Your task to perform on an android device: What's the weather going to be this weekend? Image 0: 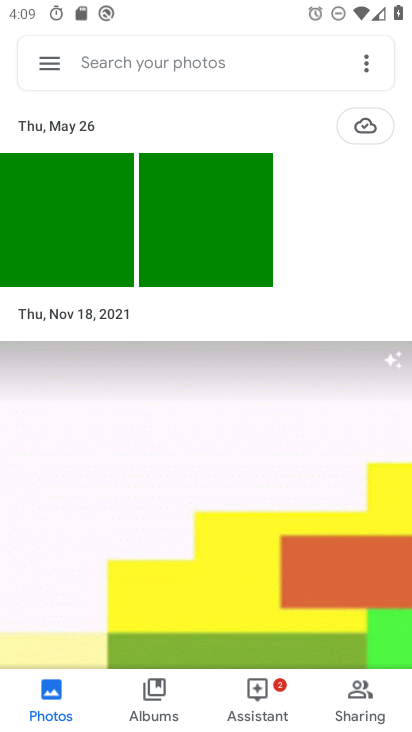
Step 0: press home button
Your task to perform on an android device: What's the weather going to be this weekend? Image 1: 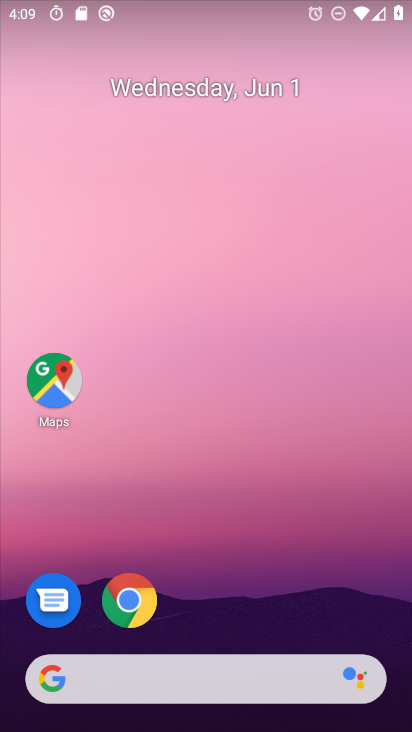
Step 1: click (215, 672)
Your task to perform on an android device: What's the weather going to be this weekend? Image 2: 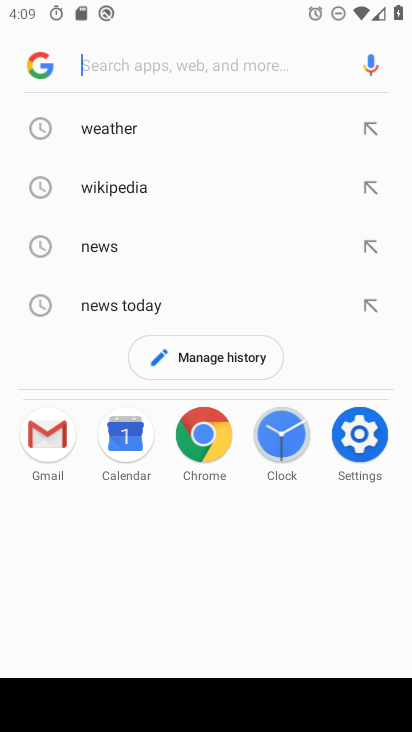
Step 2: click (108, 133)
Your task to perform on an android device: What's the weather going to be this weekend? Image 3: 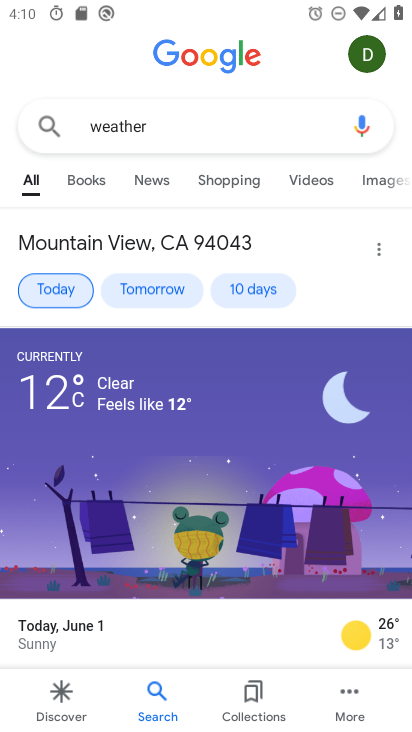
Step 3: click (240, 296)
Your task to perform on an android device: What's the weather going to be this weekend? Image 4: 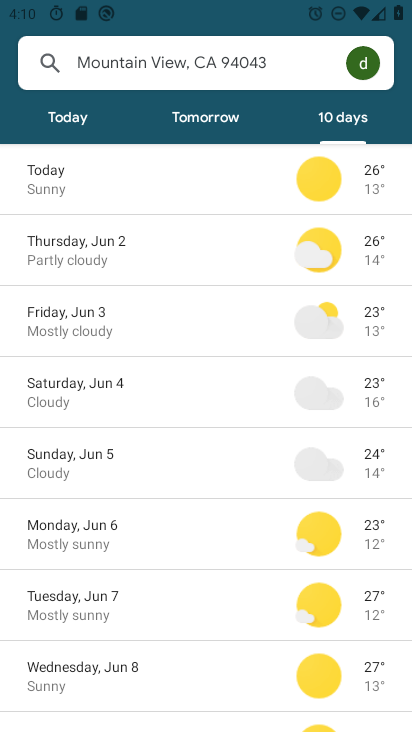
Step 4: task complete